Your task to perform on an android device: Open Youtube and go to "Your channel" Image 0: 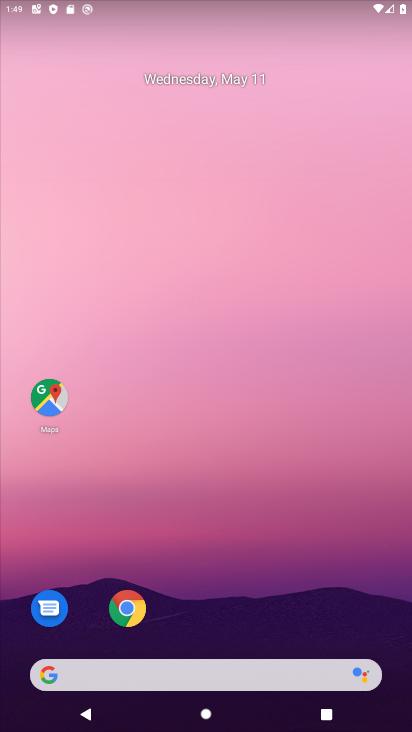
Step 0: drag from (284, 628) to (258, 160)
Your task to perform on an android device: Open Youtube and go to "Your channel" Image 1: 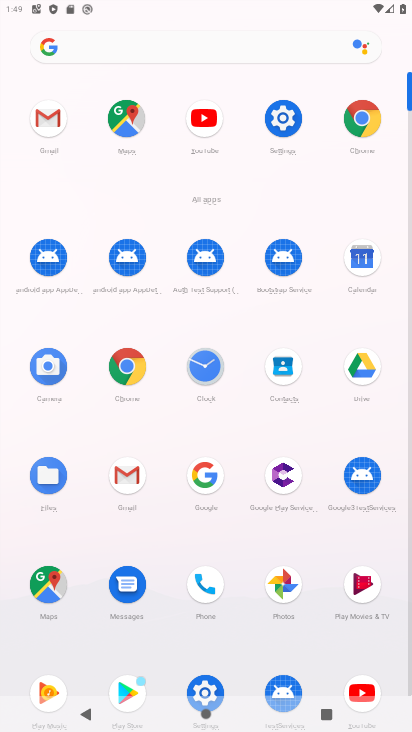
Step 1: click (199, 114)
Your task to perform on an android device: Open Youtube and go to "Your channel" Image 2: 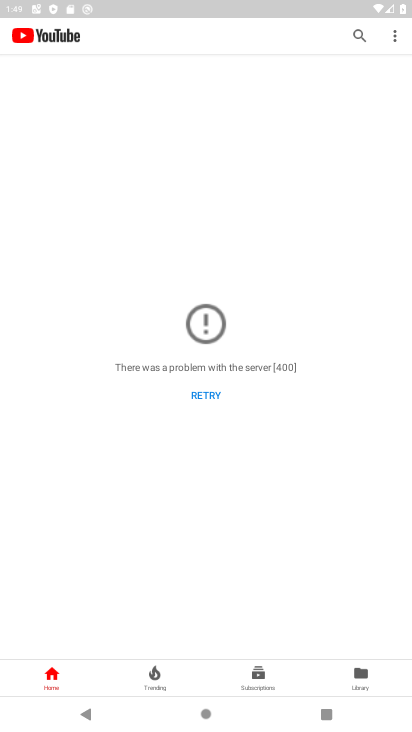
Step 2: click (198, 395)
Your task to perform on an android device: Open Youtube and go to "Your channel" Image 3: 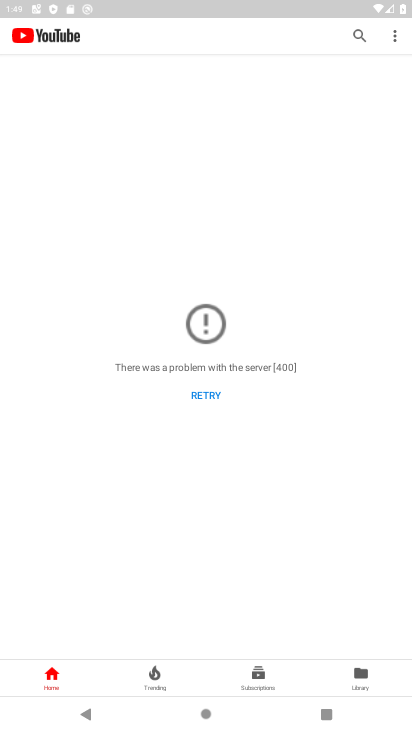
Step 3: click (198, 395)
Your task to perform on an android device: Open Youtube and go to "Your channel" Image 4: 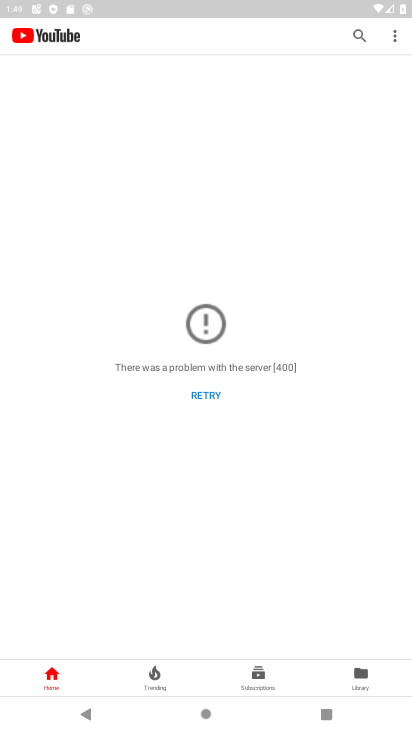
Step 4: click (199, 395)
Your task to perform on an android device: Open Youtube and go to "Your channel" Image 5: 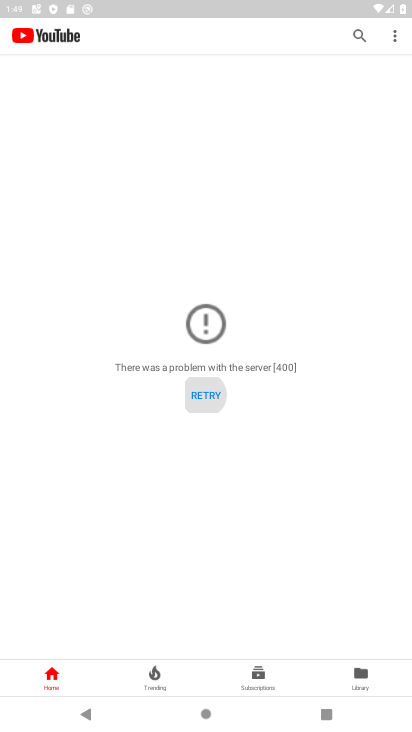
Step 5: click (199, 395)
Your task to perform on an android device: Open Youtube and go to "Your channel" Image 6: 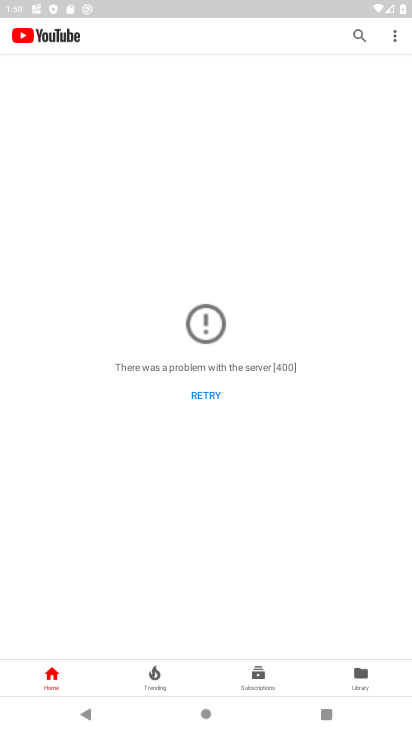
Step 6: click (201, 391)
Your task to perform on an android device: Open Youtube and go to "Your channel" Image 7: 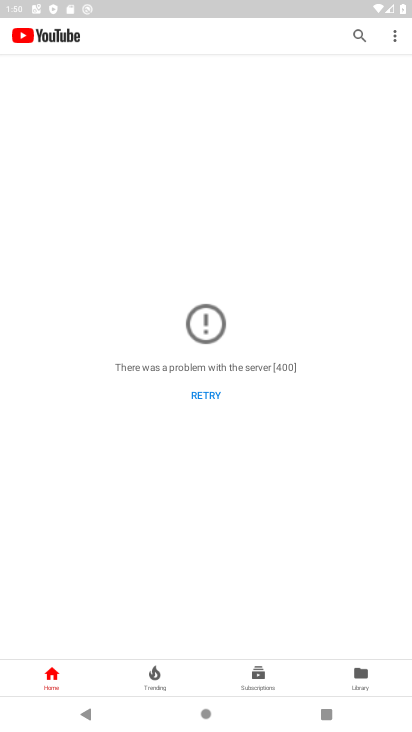
Step 7: click (201, 391)
Your task to perform on an android device: Open Youtube and go to "Your channel" Image 8: 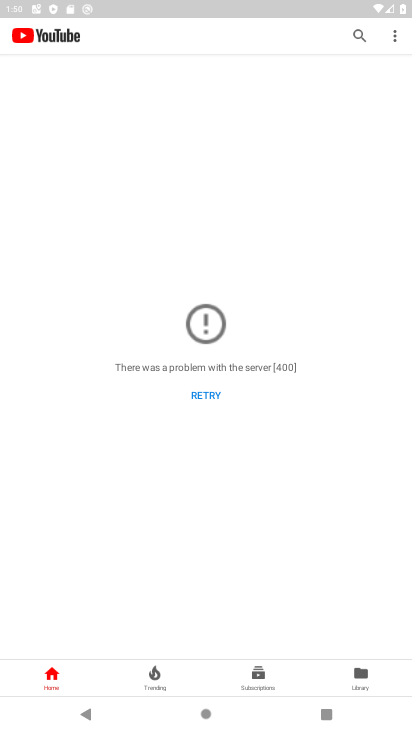
Step 8: click (217, 393)
Your task to perform on an android device: Open Youtube and go to "Your channel" Image 9: 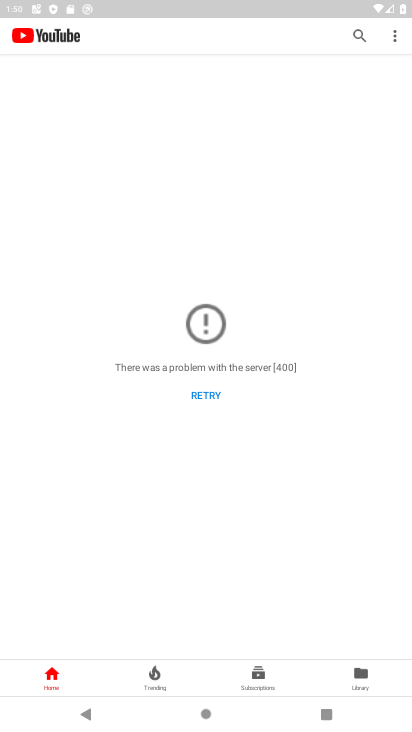
Step 9: click (217, 393)
Your task to perform on an android device: Open Youtube and go to "Your channel" Image 10: 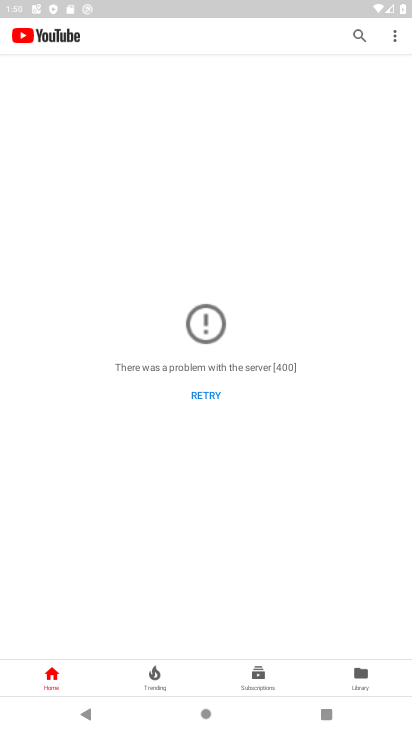
Step 10: task complete